Your task to perform on an android device: Do I have any events tomorrow? Image 0: 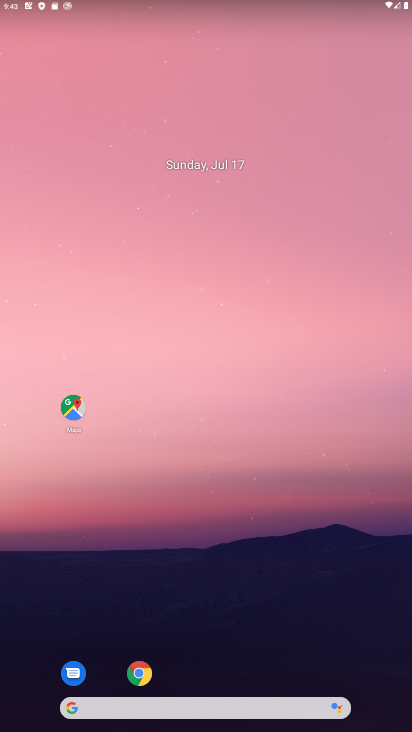
Step 0: drag from (166, 671) to (154, 84)
Your task to perform on an android device: Do I have any events tomorrow? Image 1: 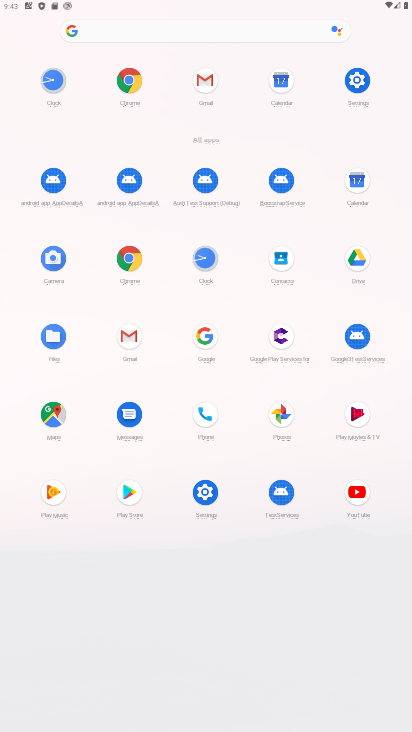
Step 1: click (355, 182)
Your task to perform on an android device: Do I have any events tomorrow? Image 2: 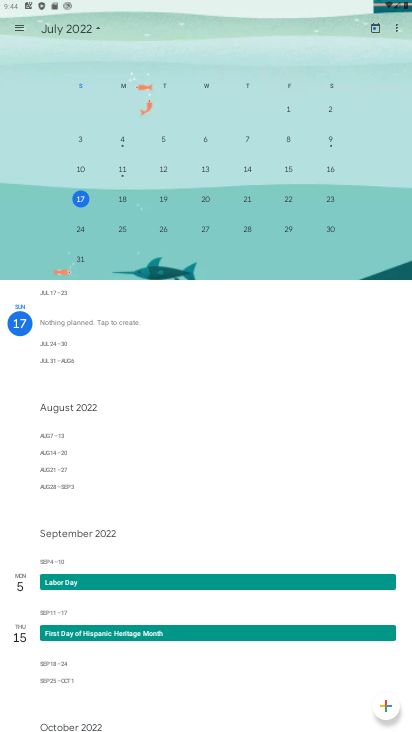
Step 2: click (121, 199)
Your task to perform on an android device: Do I have any events tomorrow? Image 3: 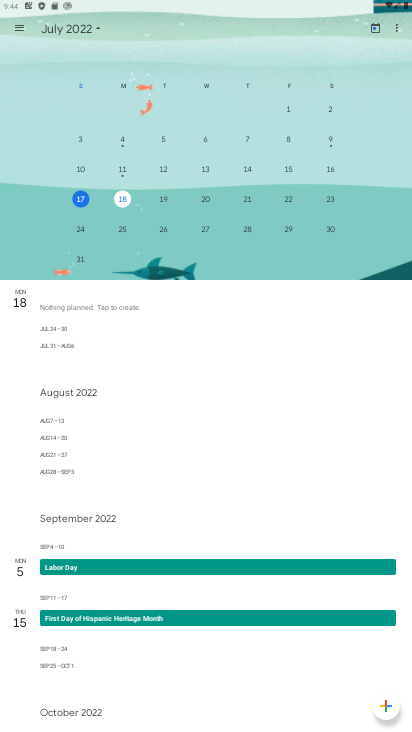
Step 3: task complete